Your task to perform on an android device: Open Google Image 0: 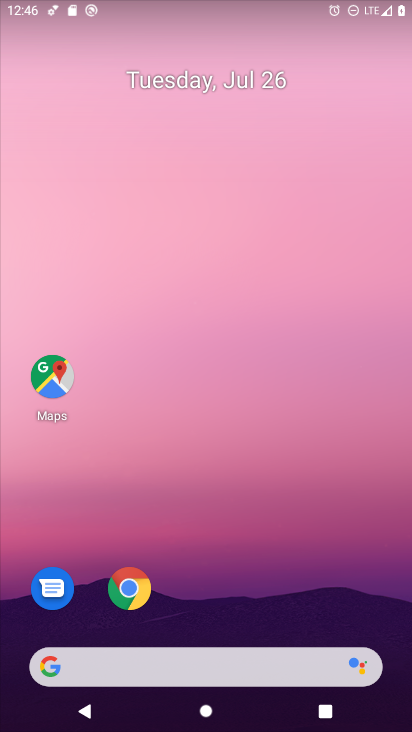
Step 0: drag from (244, 630) to (236, 48)
Your task to perform on an android device: Open Google Image 1: 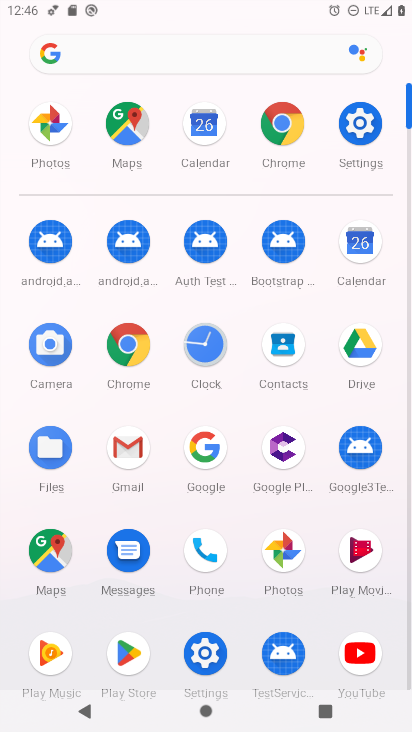
Step 1: click (205, 448)
Your task to perform on an android device: Open Google Image 2: 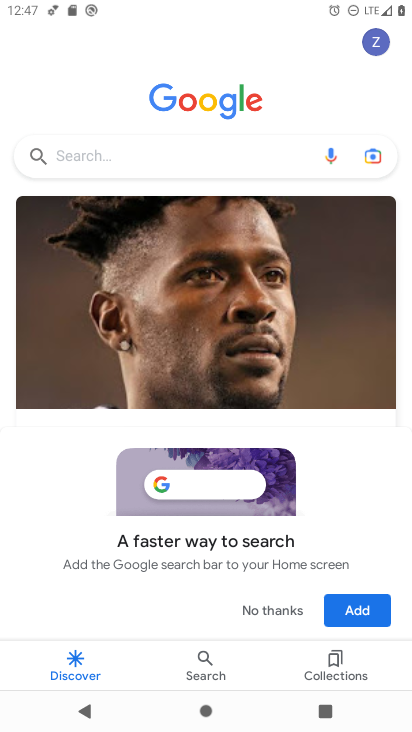
Step 2: task complete